Your task to perform on an android device: open a bookmark in the chrome app Image 0: 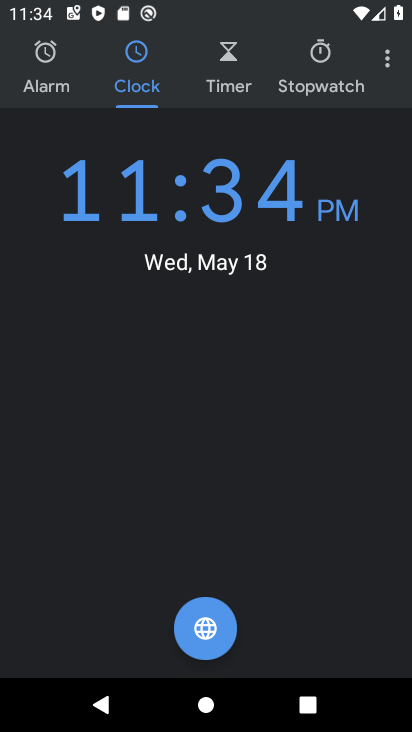
Step 0: press home button
Your task to perform on an android device: open a bookmark in the chrome app Image 1: 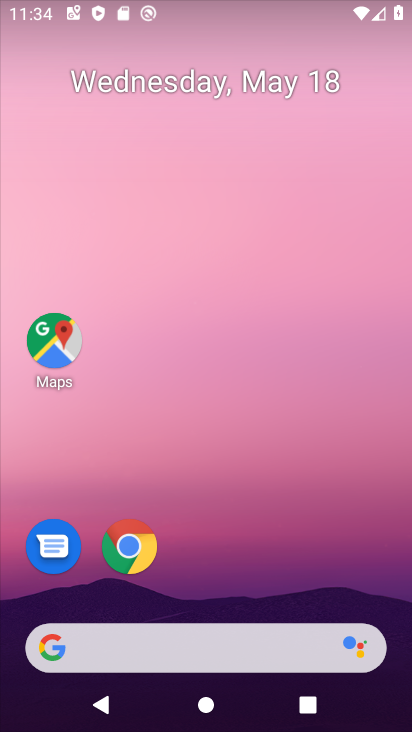
Step 1: click (129, 550)
Your task to perform on an android device: open a bookmark in the chrome app Image 2: 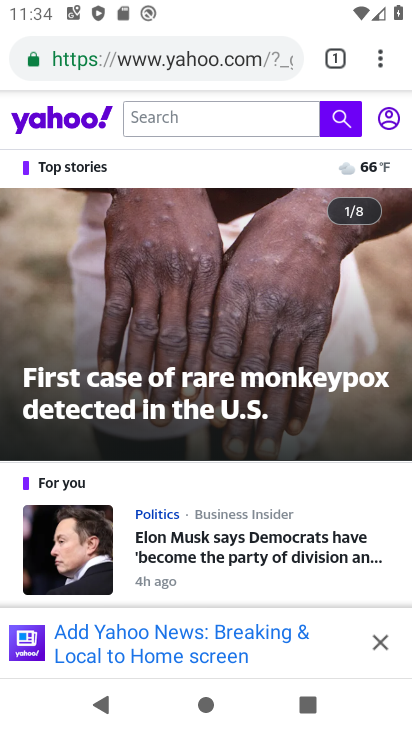
Step 2: click (376, 63)
Your task to perform on an android device: open a bookmark in the chrome app Image 3: 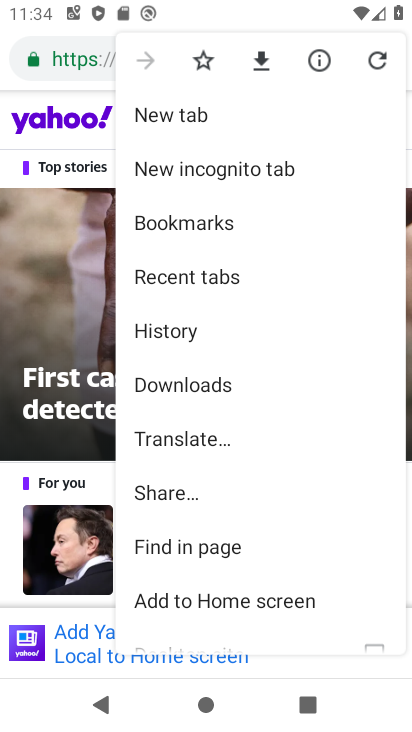
Step 3: click (186, 213)
Your task to perform on an android device: open a bookmark in the chrome app Image 4: 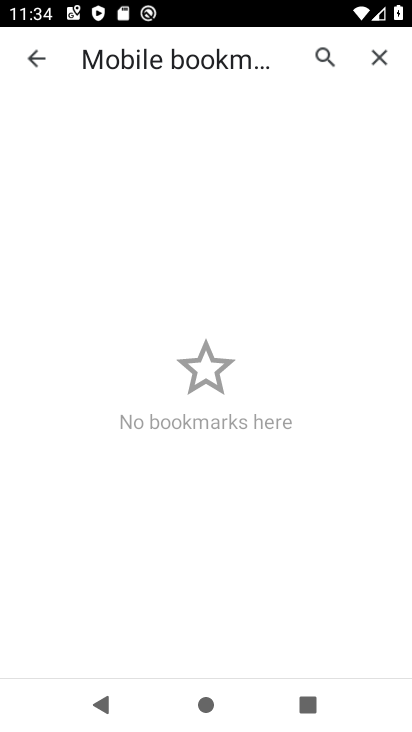
Step 4: task complete